Your task to perform on an android device: Open calendar and show me the third week of next month Image 0: 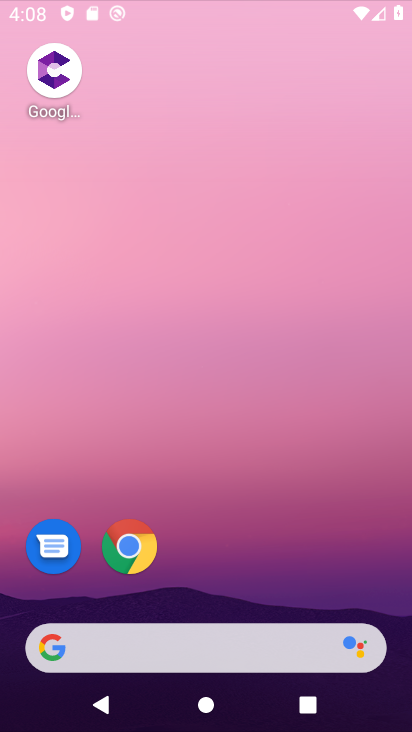
Step 0: drag from (188, 617) to (179, 118)
Your task to perform on an android device: Open calendar and show me the third week of next month Image 1: 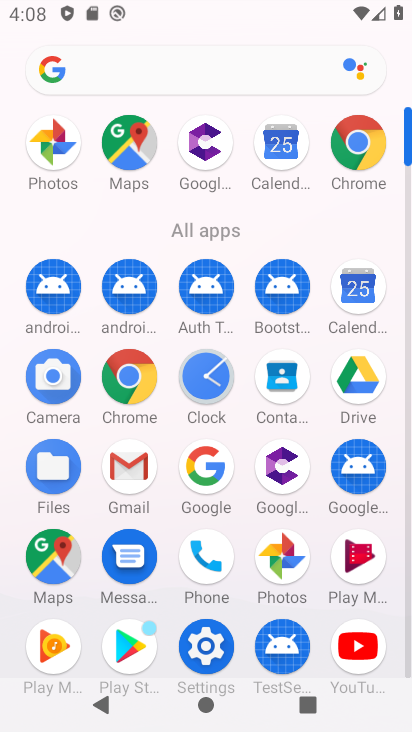
Step 1: click (354, 281)
Your task to perform on an android device: Open calendar and show me the third week of next month Image 2: 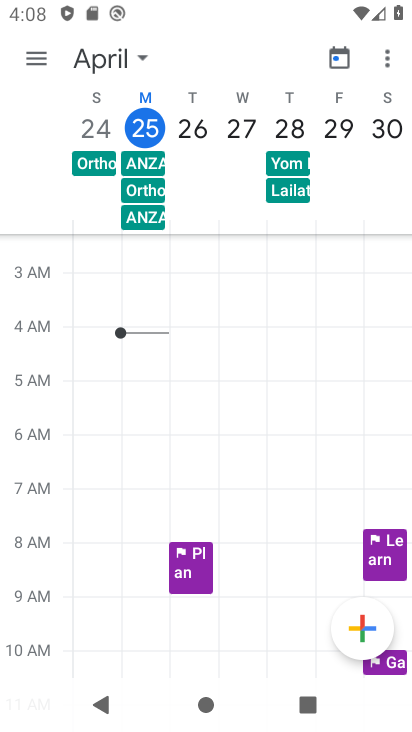
Step 2: task complete